Your task to perform on an android device: move an email to a new category in the gmail app Image 0: 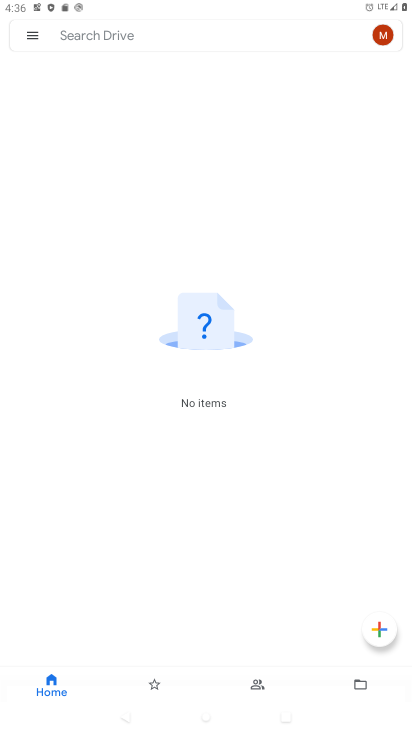
Step 0: press home button
Your task to perform on an android device: move an email to a new category in the gmail app Image 1: 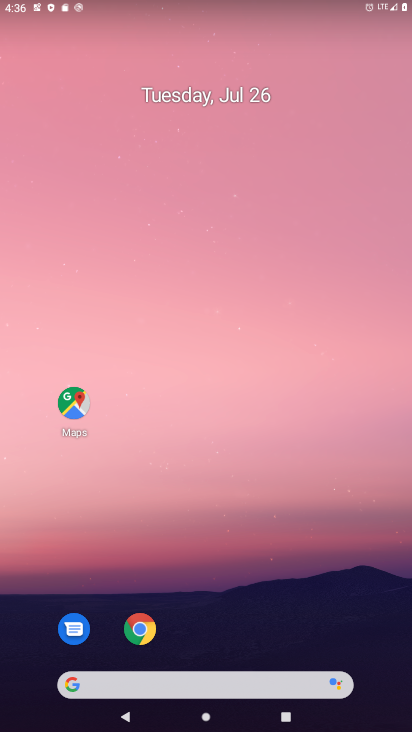
Step 1: drag from (235, 722) to (233, 145)
Your task to perform on an android device: move an email to a new category in the gmail app Image 2: 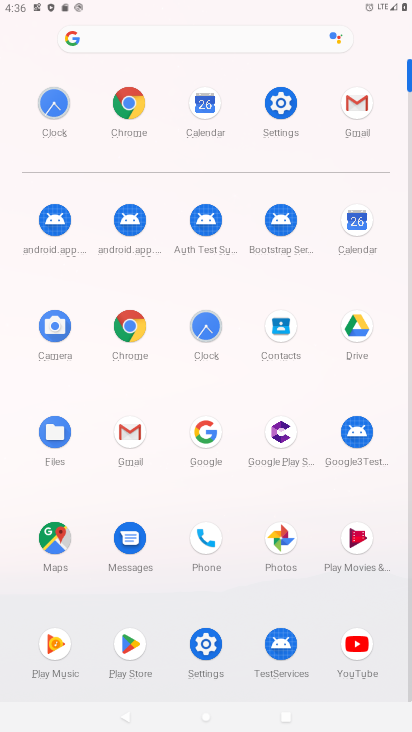
Step 2: click (122, 426)
Your task to perform on an android device: move an email to a new category in the gmail app Image 3: 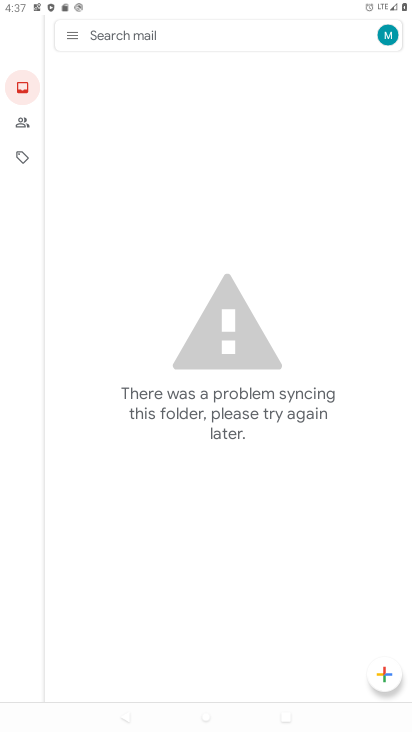
Step 3: task complete